Your task to perform on an android device: set an alarm Image 0: 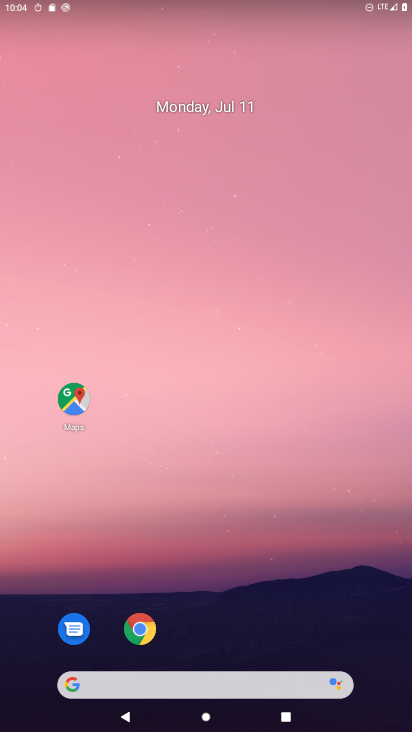
Step 0: drag from (199, 626) to (291, 62)
Your task to perform on an android device: set an alarm Image 1: 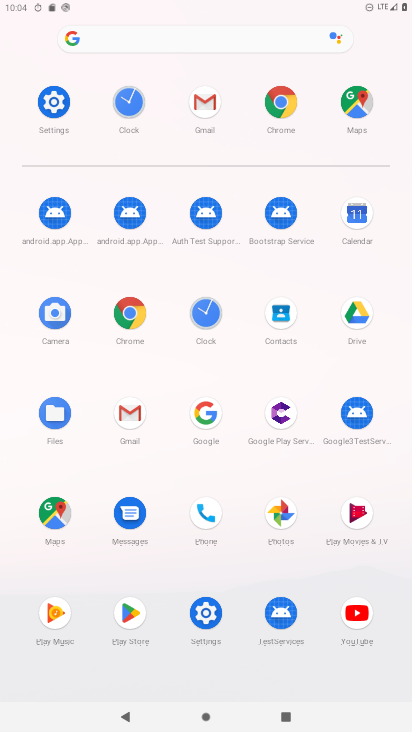
Step 1: click (128, 108)
Your task to perform on an android device: set an alarm Image 2: 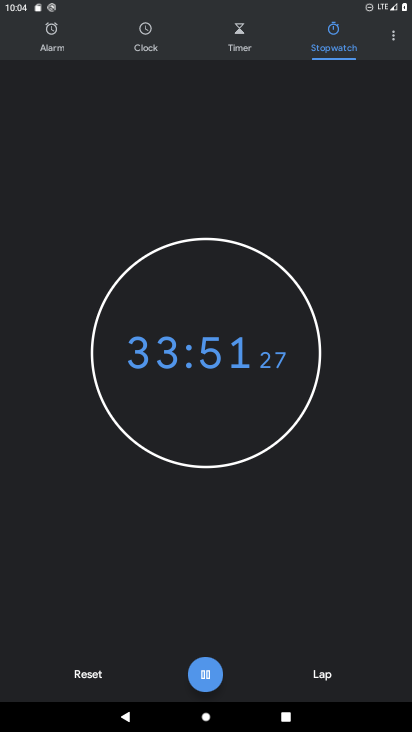
Step 2: click (52, 49)
Your task to perform on an android device: set an alarm Image 3: 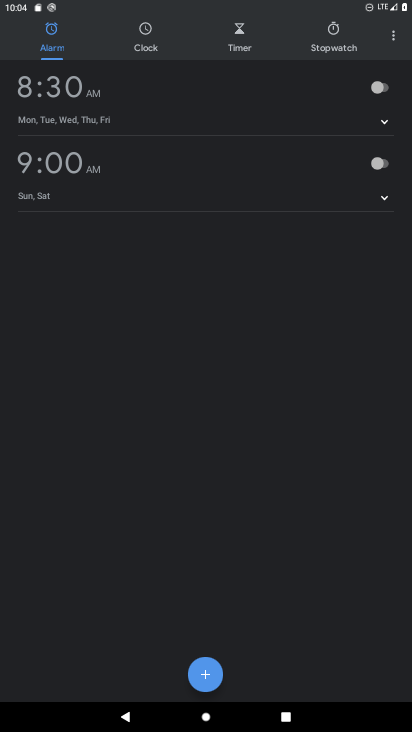
Step 3: click (386, 95)
Your task to perform on an android device: set an alarm Image 4: 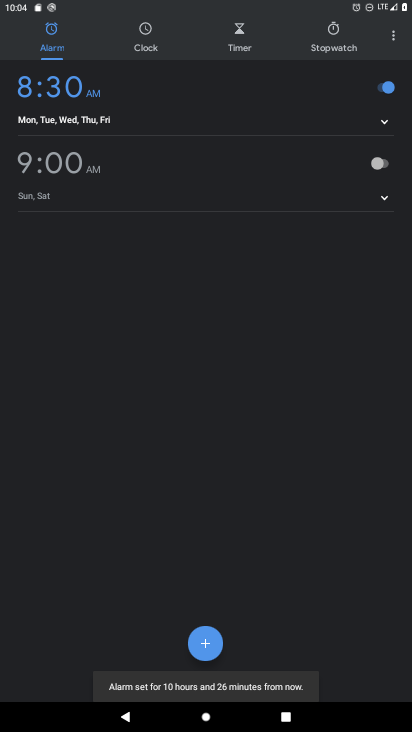
Step 4: task complete